Your task to perform on an android device: What is the news today? Image 0: 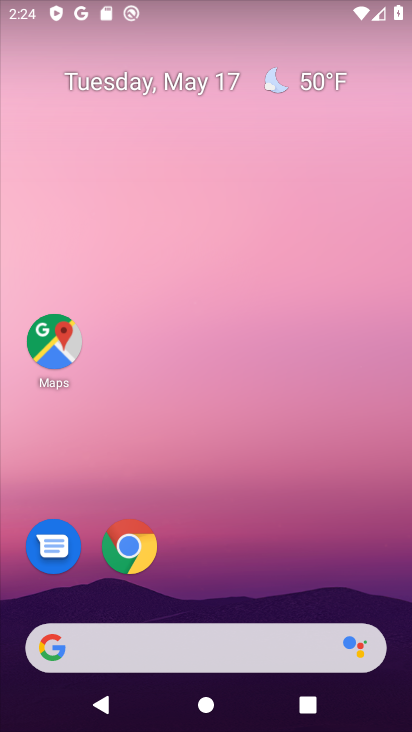
Step 0: drag from (222, 587) to (259, 0)
Your task to perform on an android device: What is the news today? Image 1: 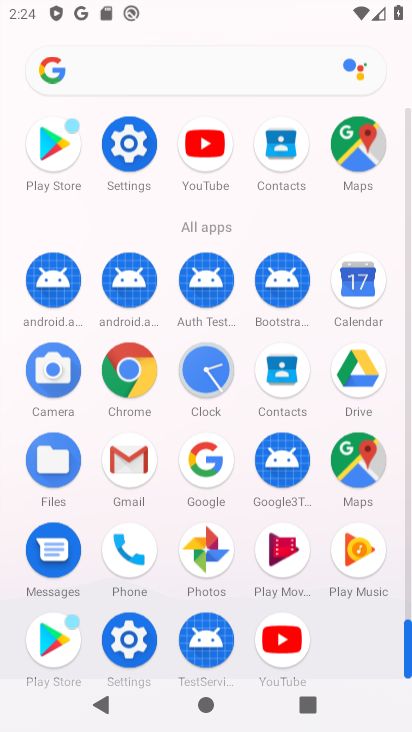
Step 1: click (212, 65)
Your task to perform on an android device: What is the news today? Image 2: 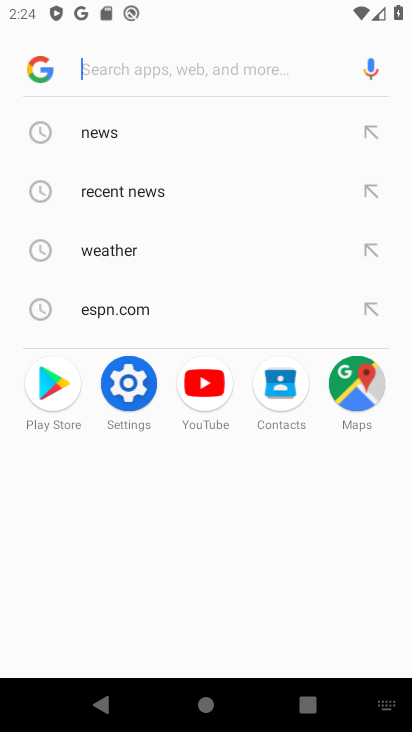
Step 2: type "news today ?"
Your task to perform on an android device: What is the news today? Image 3: 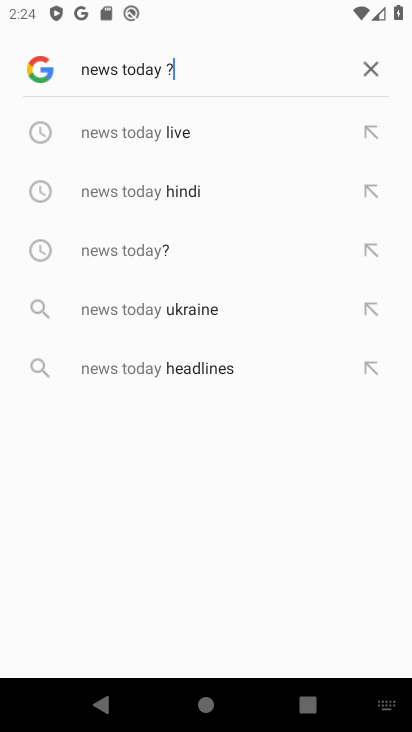
Step 3: click (172, 265)
Your task to perform on an android device: What is the news today? Image 4: 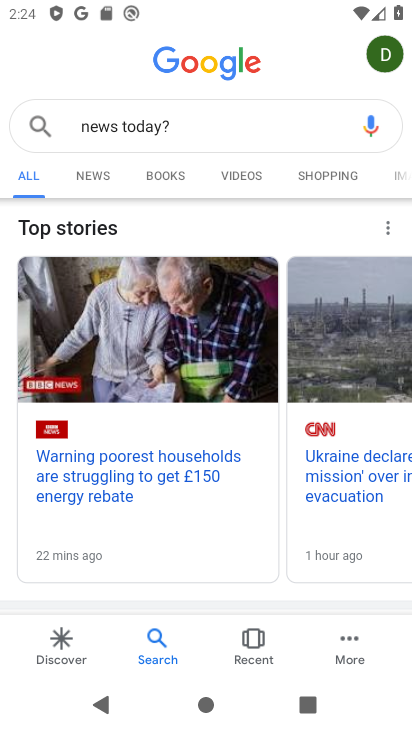
Step 4: task complete